Your task to perform on an android device: Open Google Chrome Image 0: 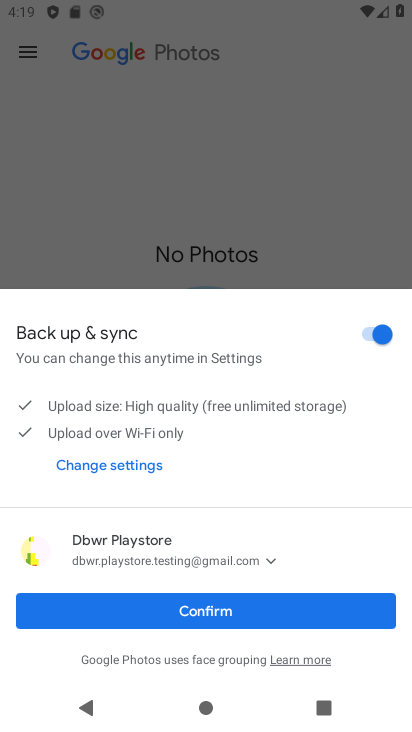
Step 0: press home button
Your task to perform on an android device: Open Google Chrome Image 1: 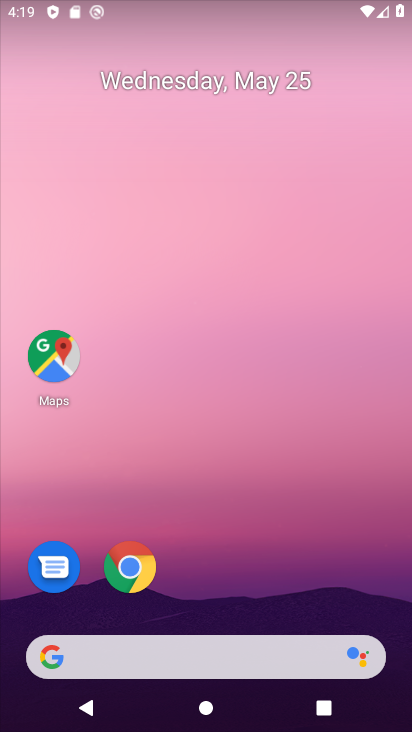
Step 1: click (106, 578)
Your task to perform on an android device: Open Google Chrome Image 2: 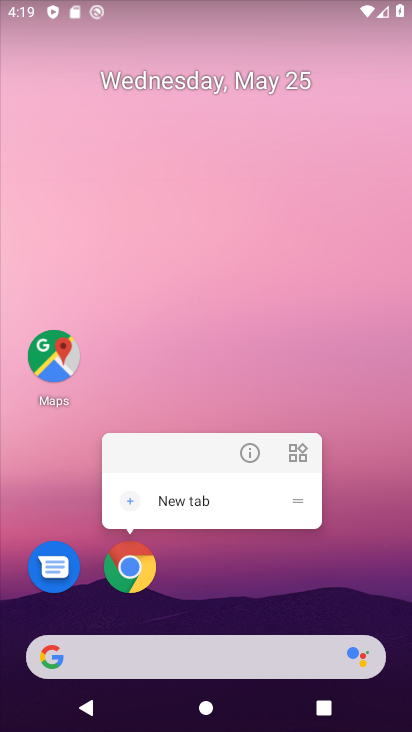
Step 2: click (139, 579)
Your task to perform on an android device: Open Google Chrome Image 3: 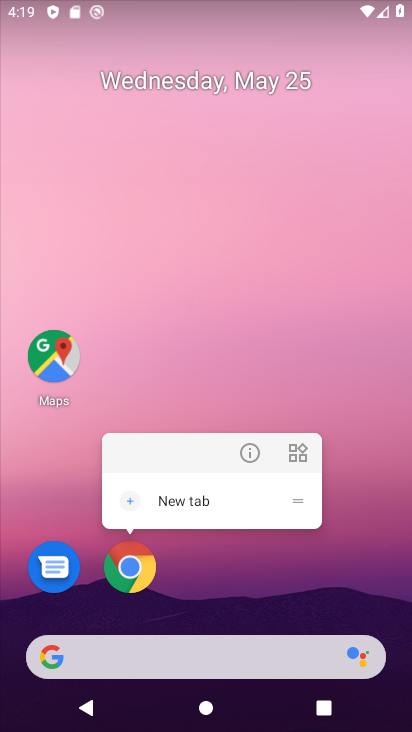
Step 3: click (140, 576)
Your task to perform on an android device: Open Google Chrome Image 4: 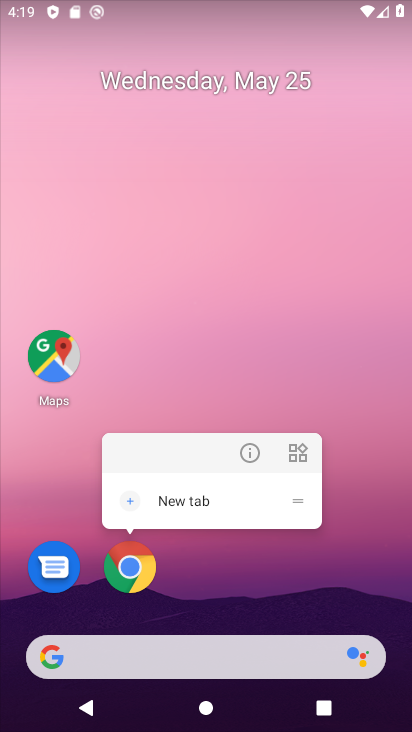
Step 4: click (140, 588)
Your task to perform on an android device: Open Google Chrome Image 5: 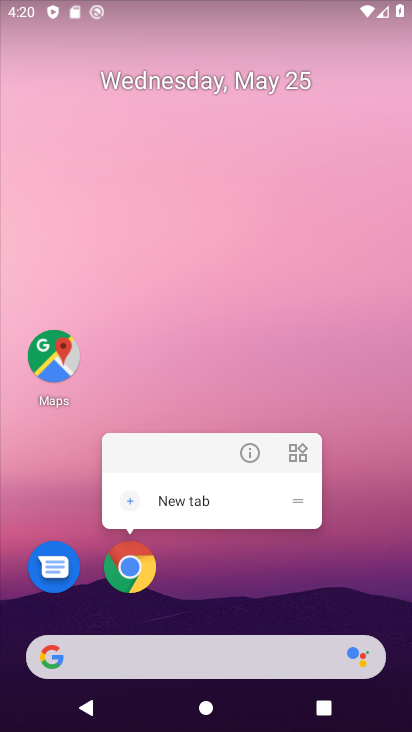
Step 5: click (135, 566)
Your task to perform on an android device: Open Google Chrome Image 6: 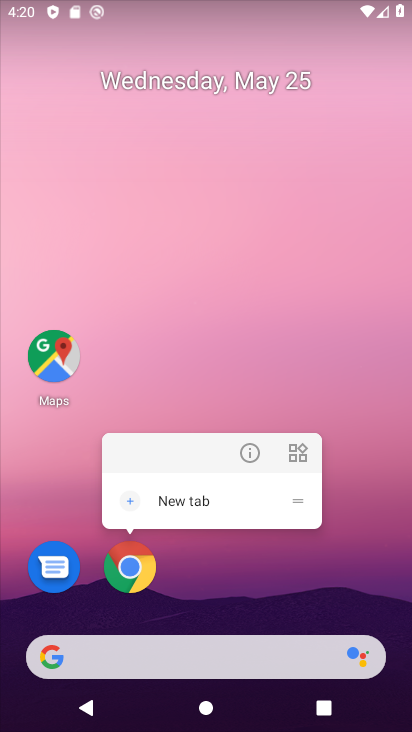
Step 6: click (129, 563)
Your task to perform on an android device: Open Google Chrome Image 7: 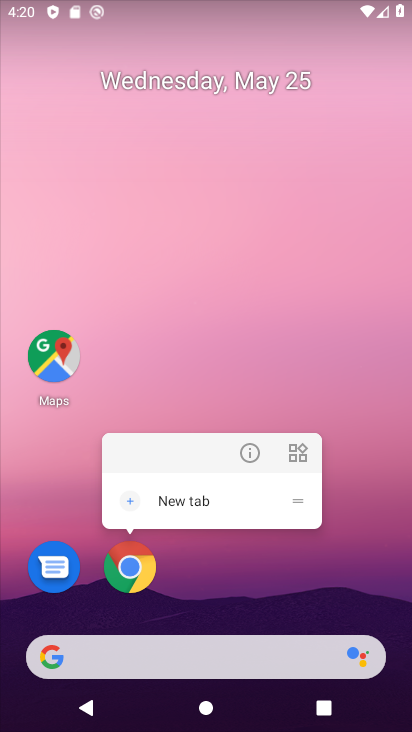
Step 7: click (124, 581)
Your task to perform on an android device: Open Google Chrome Image 8: 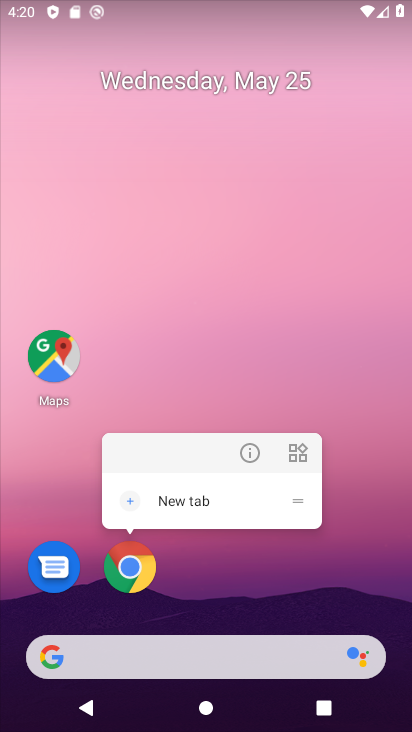
Step 8: click (125, 582)
Your task to perform on an android device: Open Google Chrome Image 9: 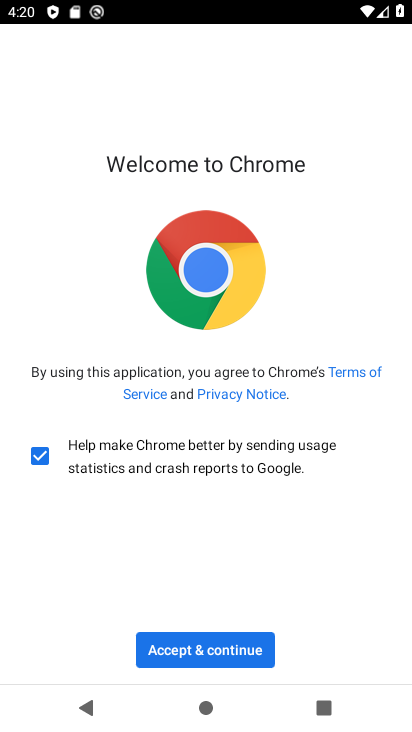
Step 9: click (241, 652)
Your task to perform on an android device: Open Google Chrome Image 10: 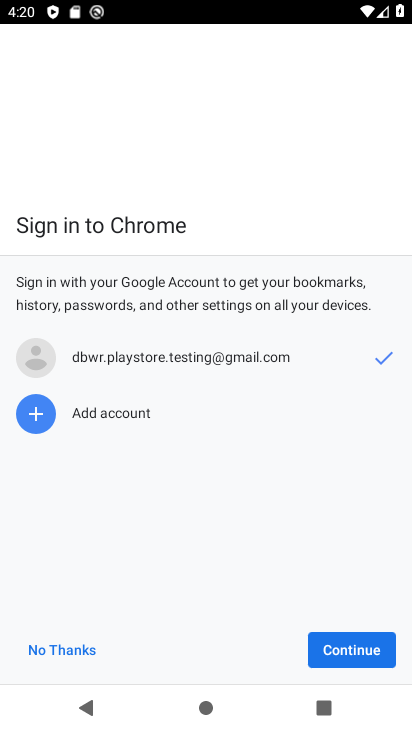
Step 10: click (347, 647)
Your task to perform on an android device: Open Google Chrome Image 11: 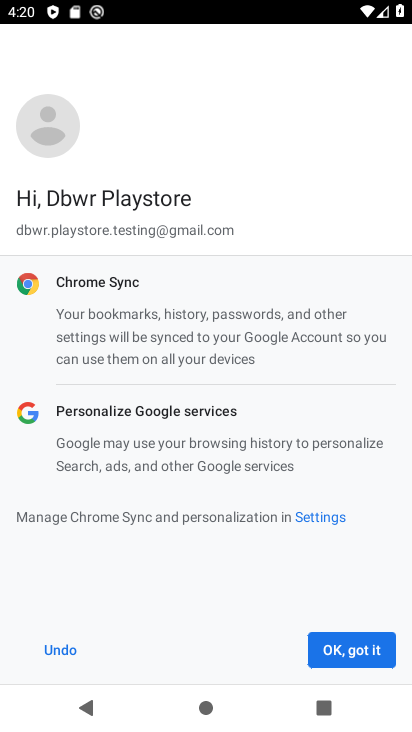
Step 11: click (347, 646)
Your task to perform on an android device: Open Google Chrome Image 12: 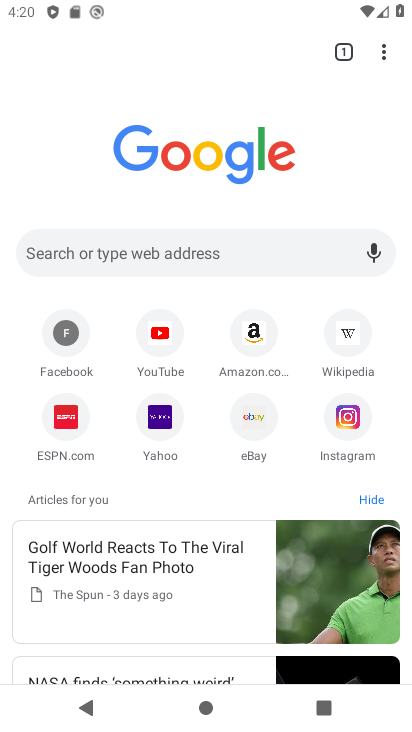
Step 12: task complete